Your task to perform on an android device: toggle notification dots Image 0: 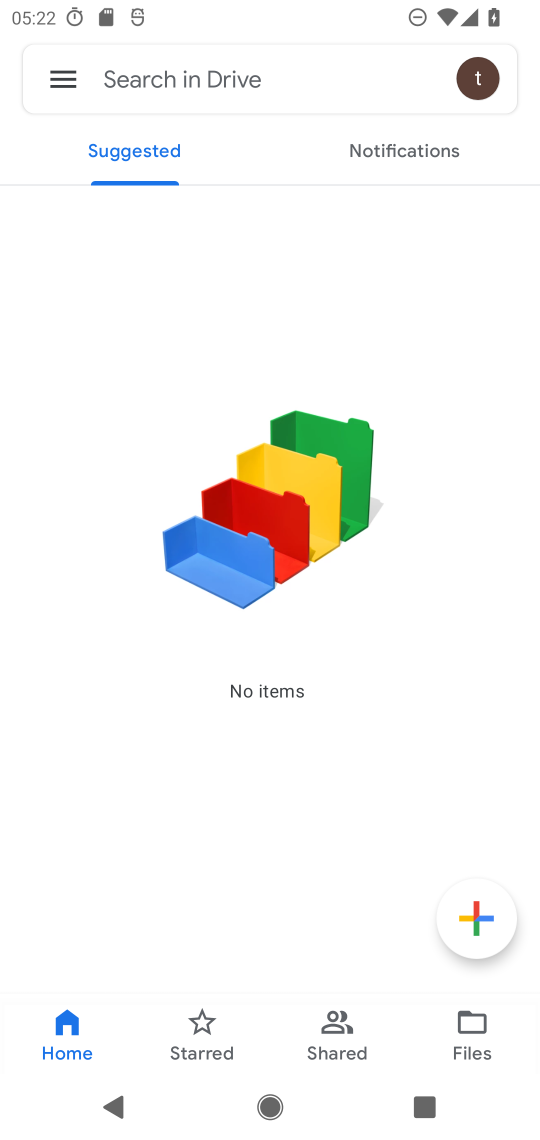
Step 0: press home button
Your task to perform on an android device: toggle notification dots Image 1: 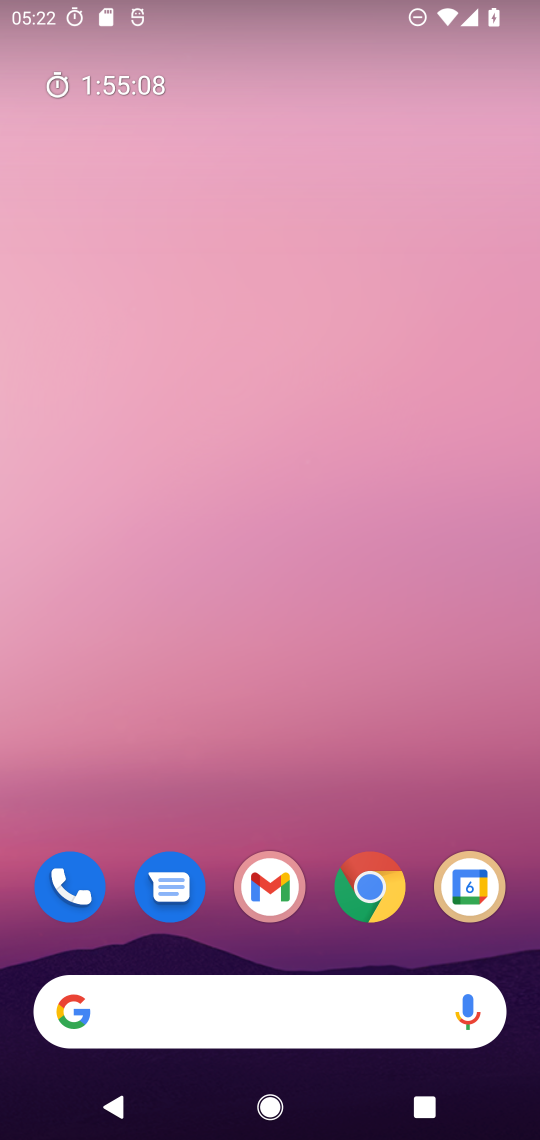
Step 1: drag from (432, 636) to (475, 236)
Your task to perform on an android device: toggle notification dots Image 2: 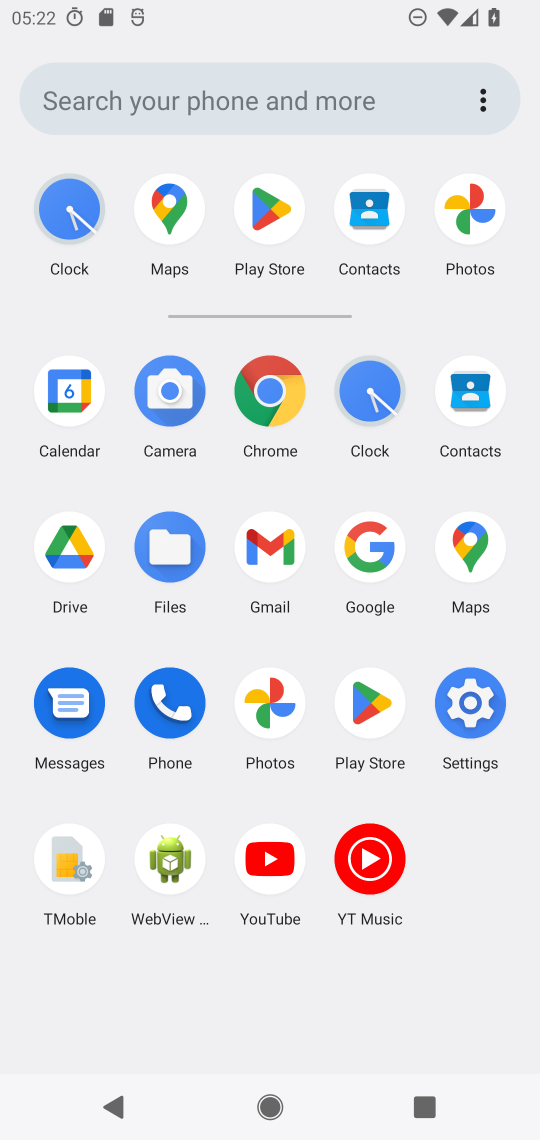
Step 2: click (460, 716)
Your task to perform on an android device: toggle notification dots Image 3: 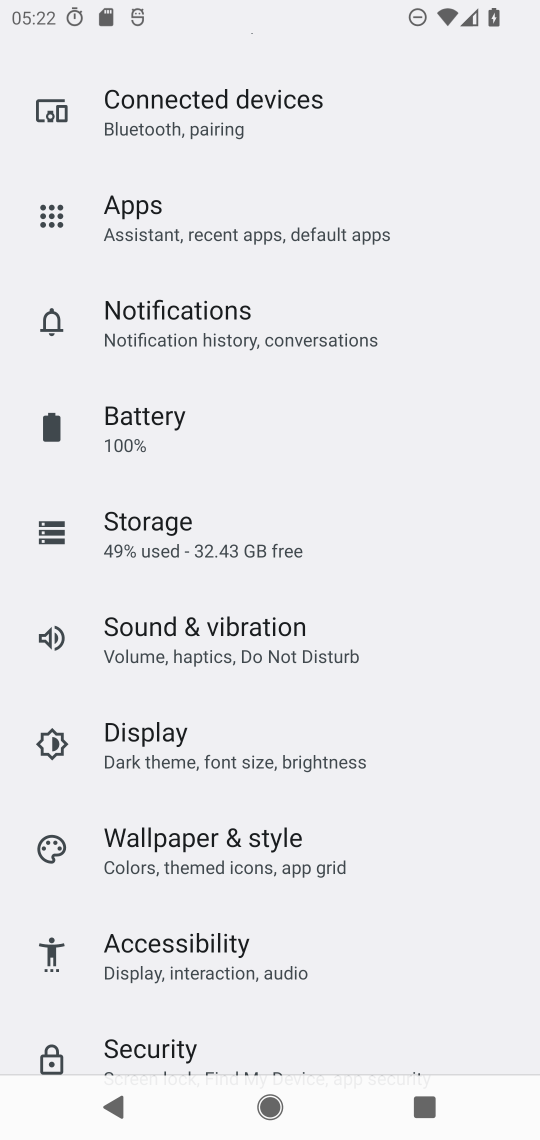
Step 3: drag from (453, 511) to (478, 674)
Your task to perform on an android device: toggle notification dots Image 4: 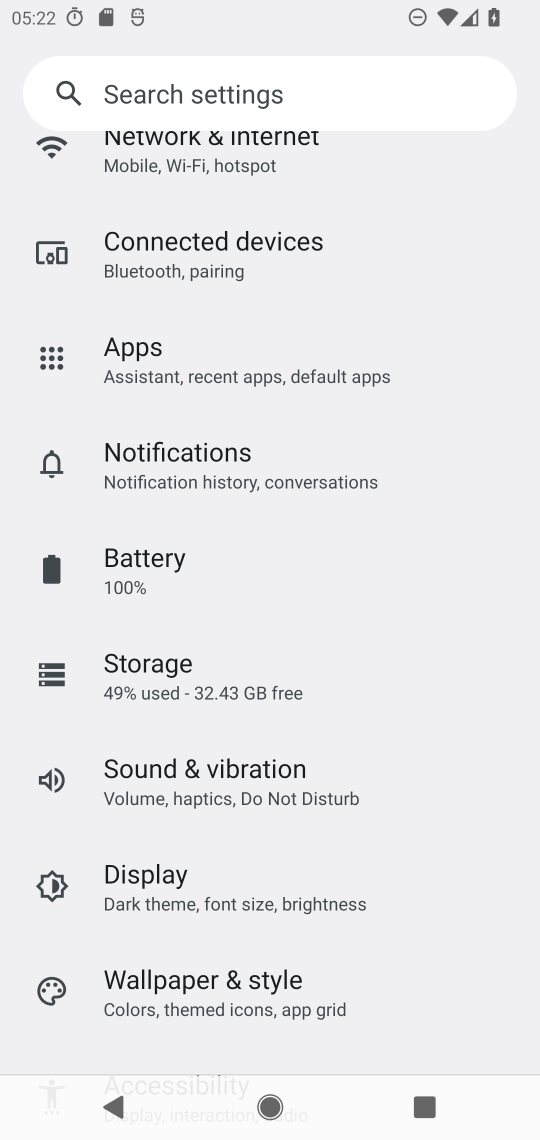
Step 4: drag from (446, 506) to (469, 661)
Your task to perform on an android device: toggle notification dots Image 5: 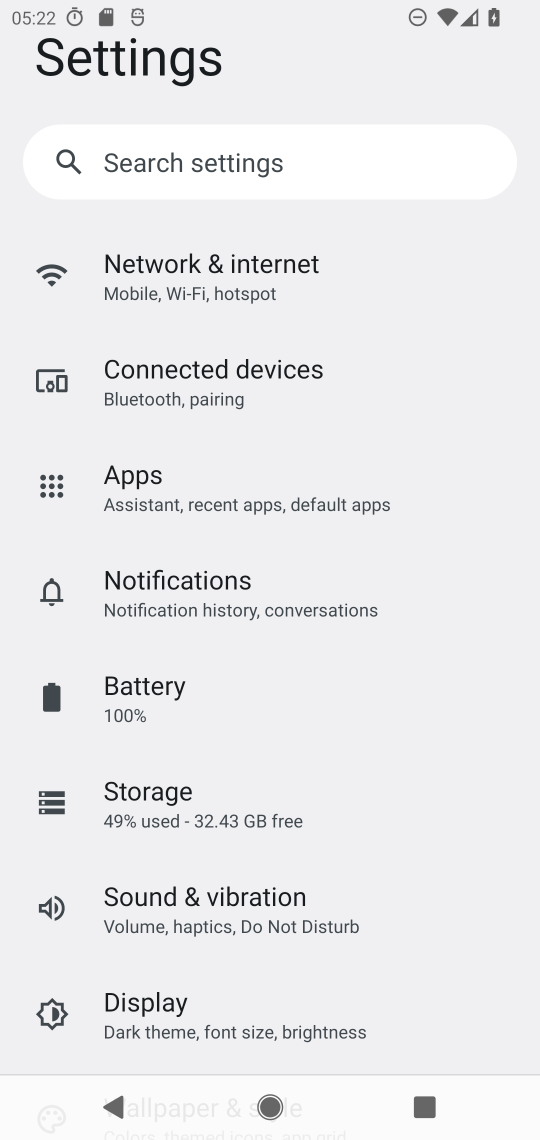
Step 5: drag from (441, 381) to (449, 596)
Your task to perform on an android device: toggle notification dots Image 6: 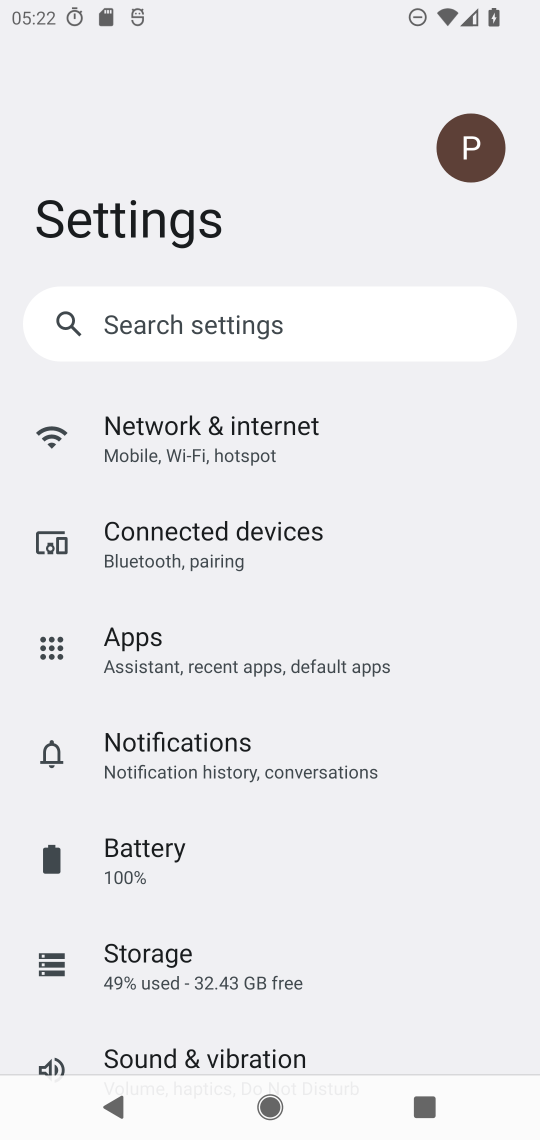
Step 6: drag from (437, 467) to (445, 769)
Your task to perform on an android device: toggle notification dots Image 7: 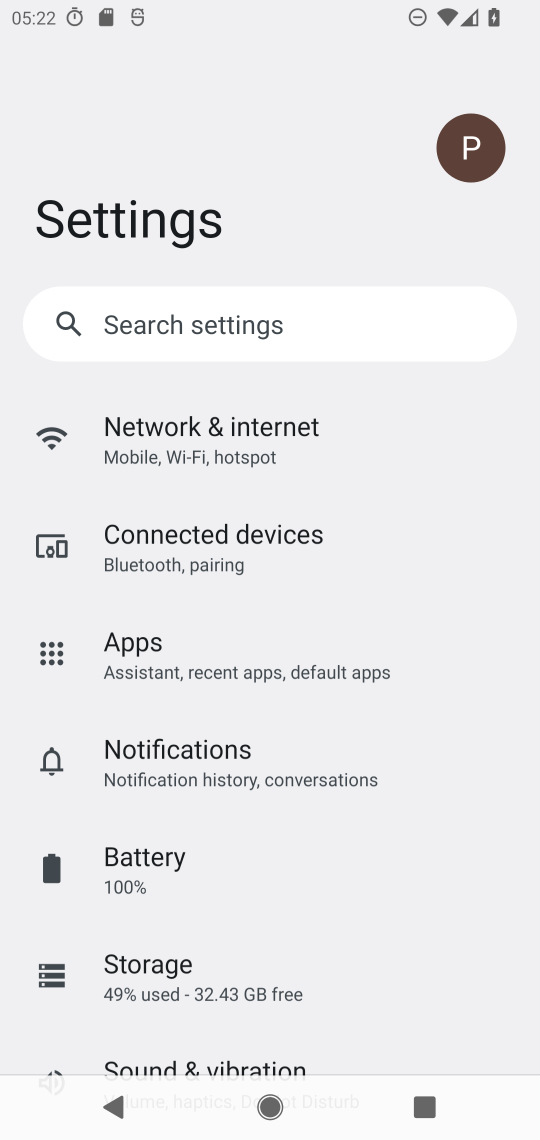
Step 7: click (380, 789)
Your task to perform on an android device: toggle notification dots Image 8: 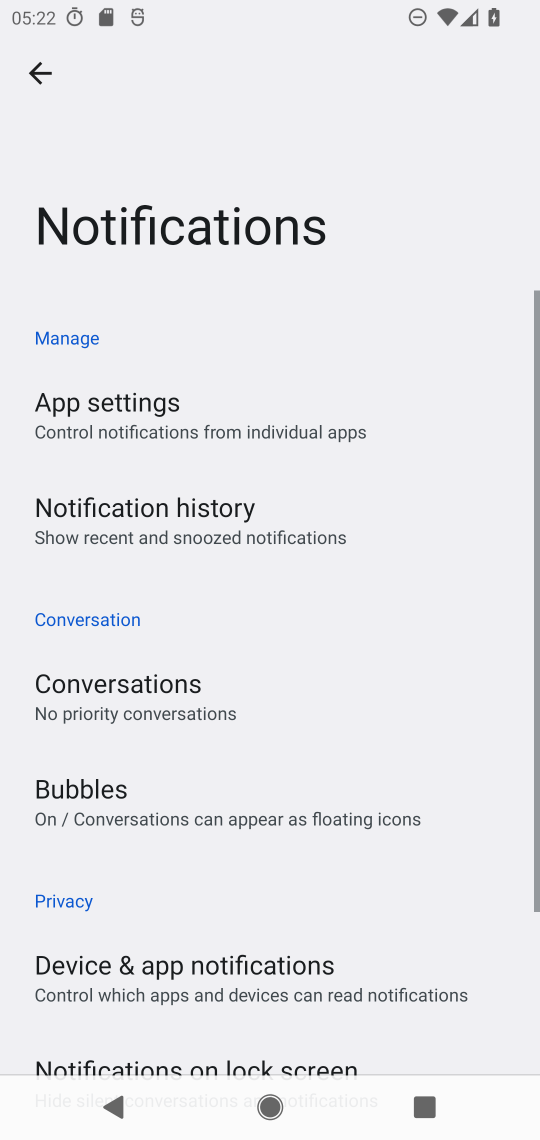
Step 8: drag from (380, 770) to (387, 640)
Your task to perform on an android device: toggle notification dots Image 9: 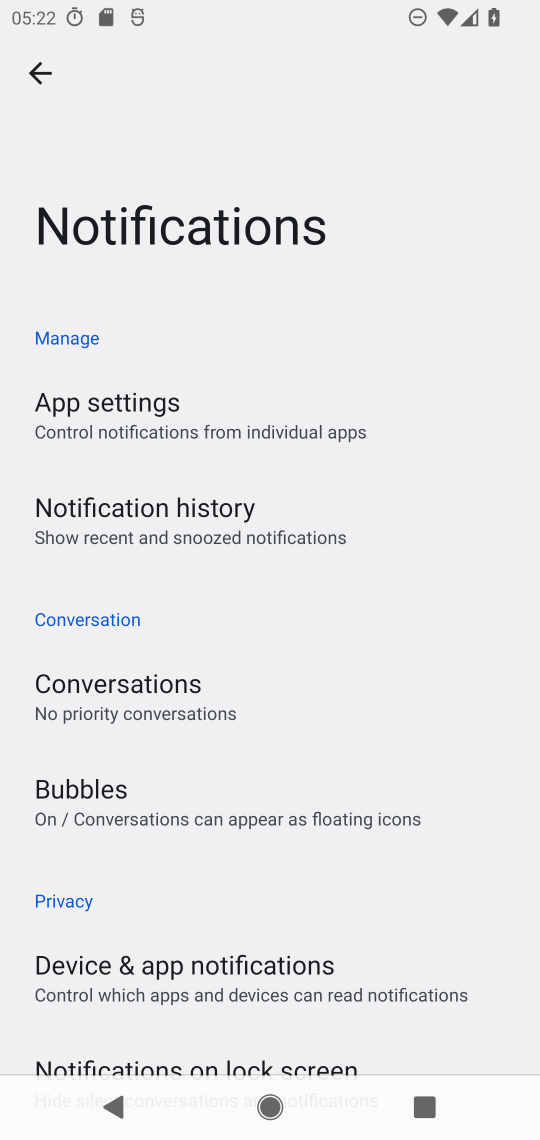
Step 9: drag from (424, 839) to (455, 695)
Your task to perform on an android device: toggle notification dots Image 10: 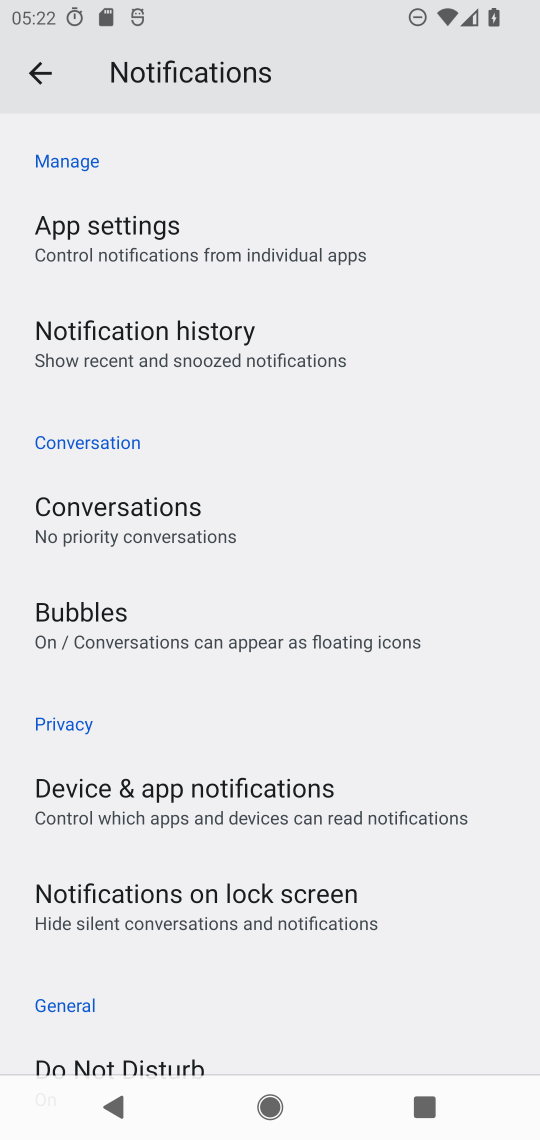
Step 10: drag from (453, 892) to (477, 753)
Your task to perform on an android device: toggle notification dots Image 11: 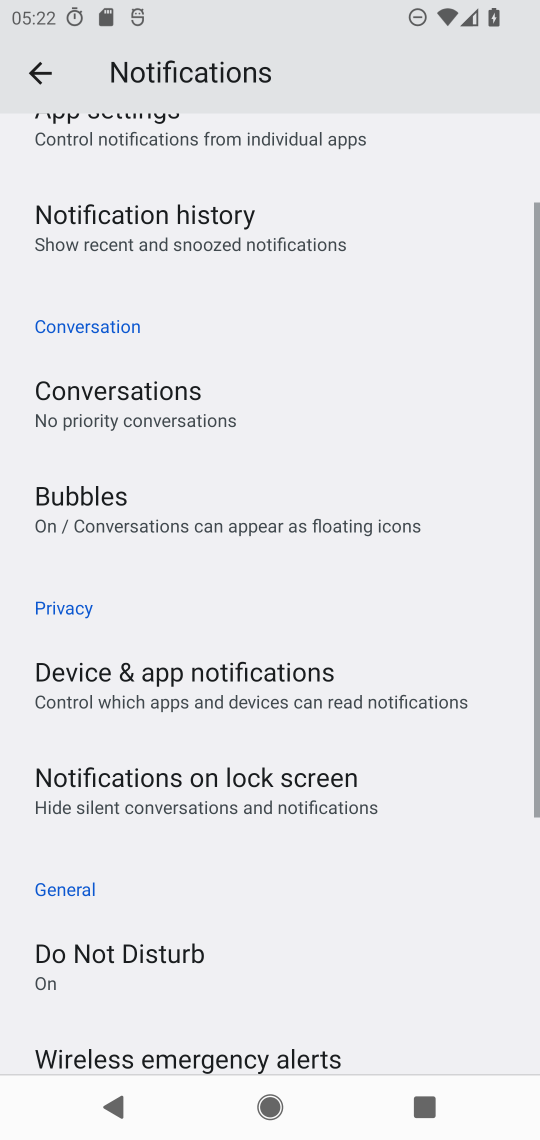
Step 11: drag from (435, 905) to (452, 741)
Your task to perform on an android device: toggle notification dots Image 12: 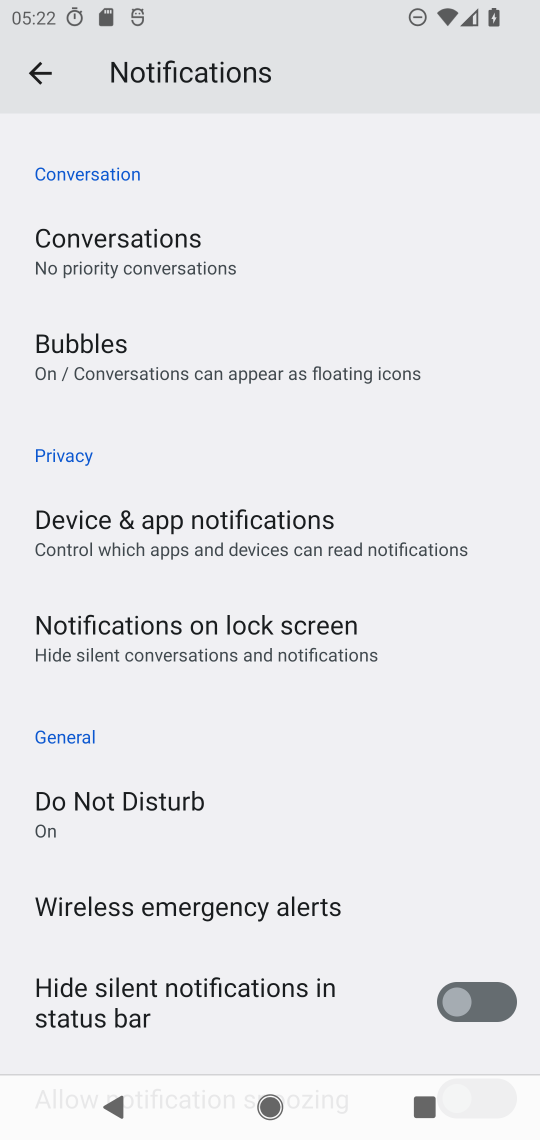
Step 12: drag from (376, 998) to (390, 731)
Your task to perform on an android device: toggle notification dots Image 13: 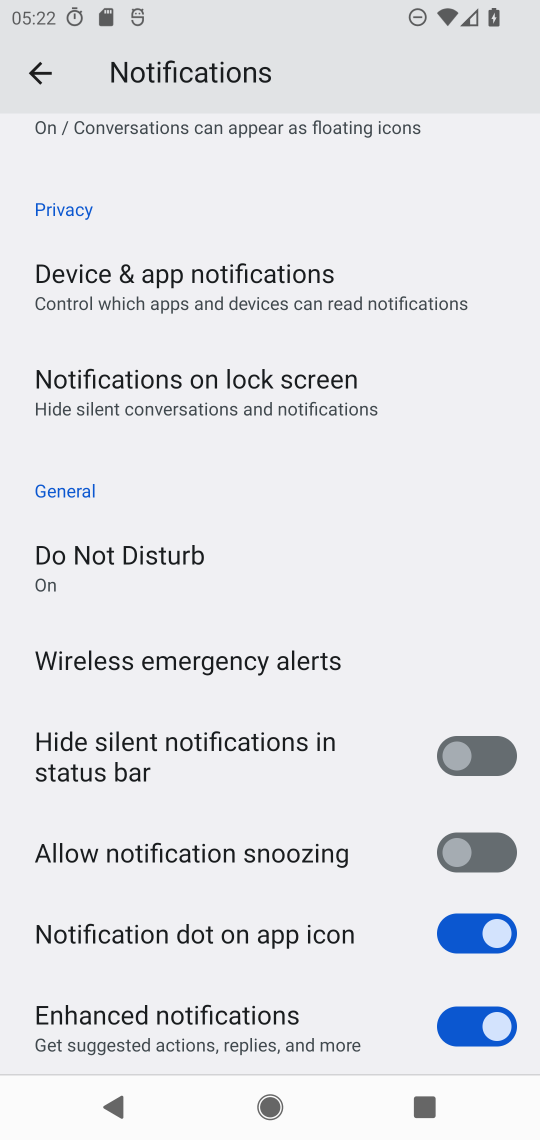
Step 13: drag from (373, 989) to (394, 827)
Your task to perform on an android device: toggle notification dots Image 14: 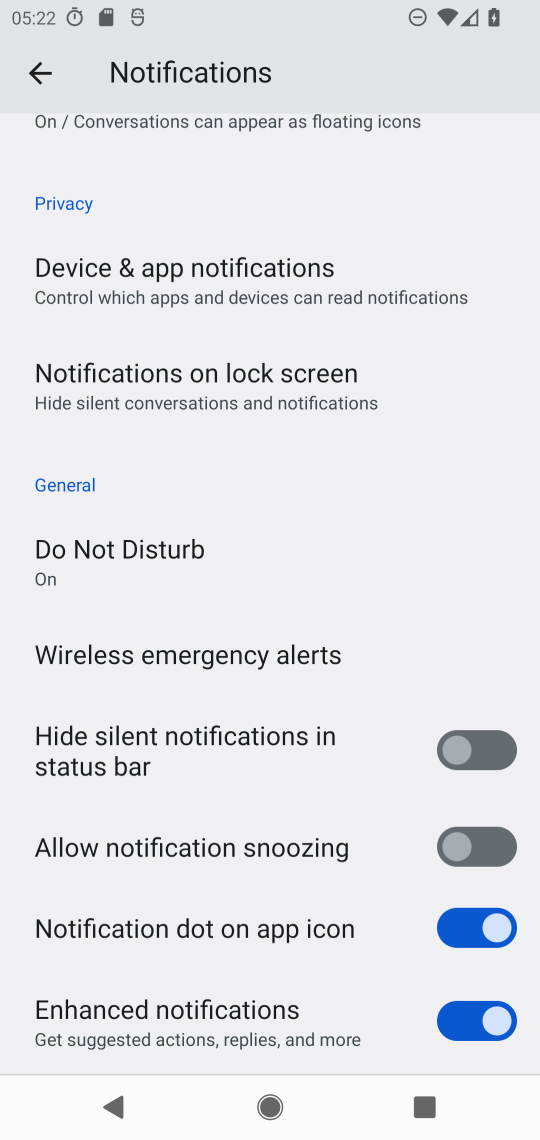
Step 14: click (488, 939)
Your task to perform on an android device: toggle notification dots Image 15: 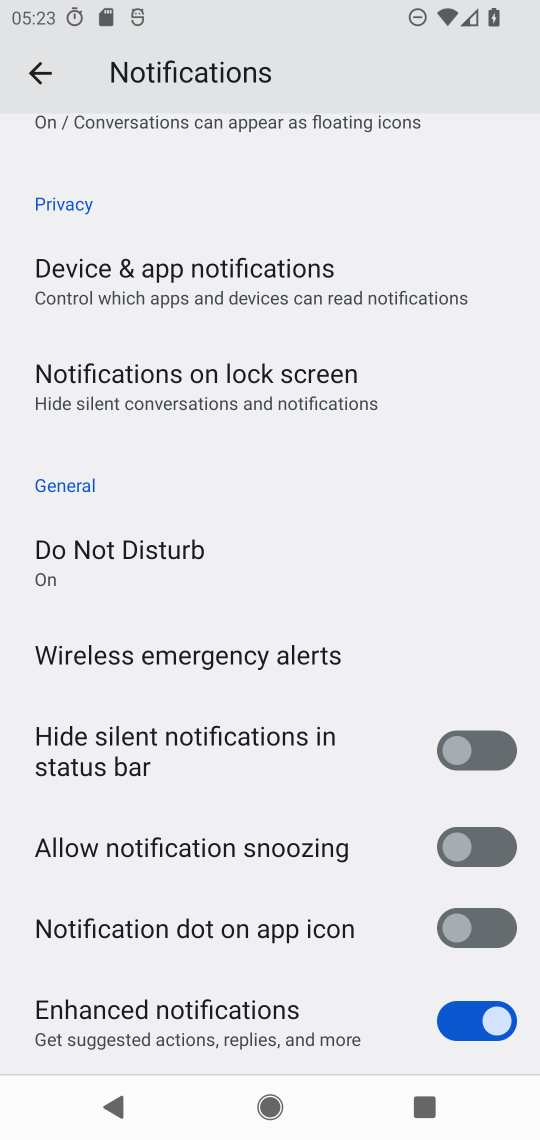
Step 15: task complete